Your task to perform on an android device: Clear the shopping cart on ebay.com. Search for razer huntsman on ebay.com, select the first entry, and add it to the cart. Image 0: 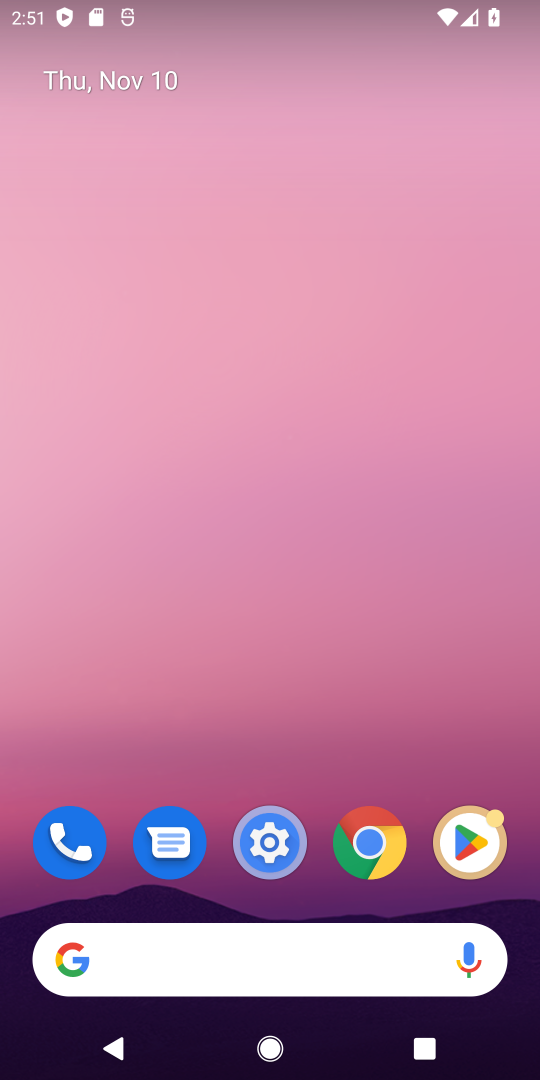
Step 0: press home button
Your task to perform on an android device: Clear the shopping cart on ebay.com. Search for razer huntsman on ebay.com, select the first entry, and add it to the cart. Image 1: 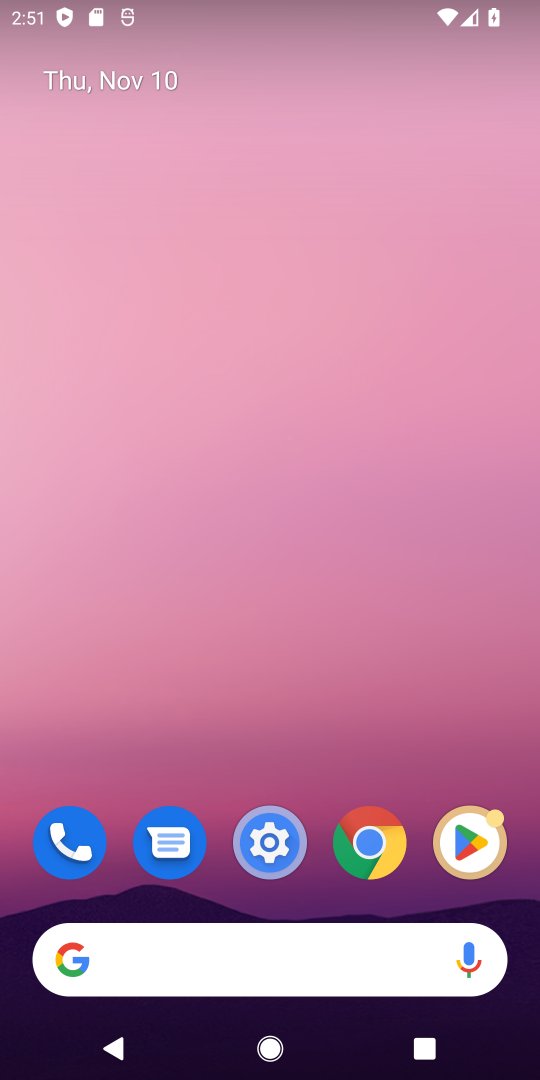
Step 1: click (105, 954)
Your task to perform on an android device: Clear the shopping cart on ebay.com. Search for razer huntsman on ebay.com, select the first entry, and add it to the cart. Image 2: 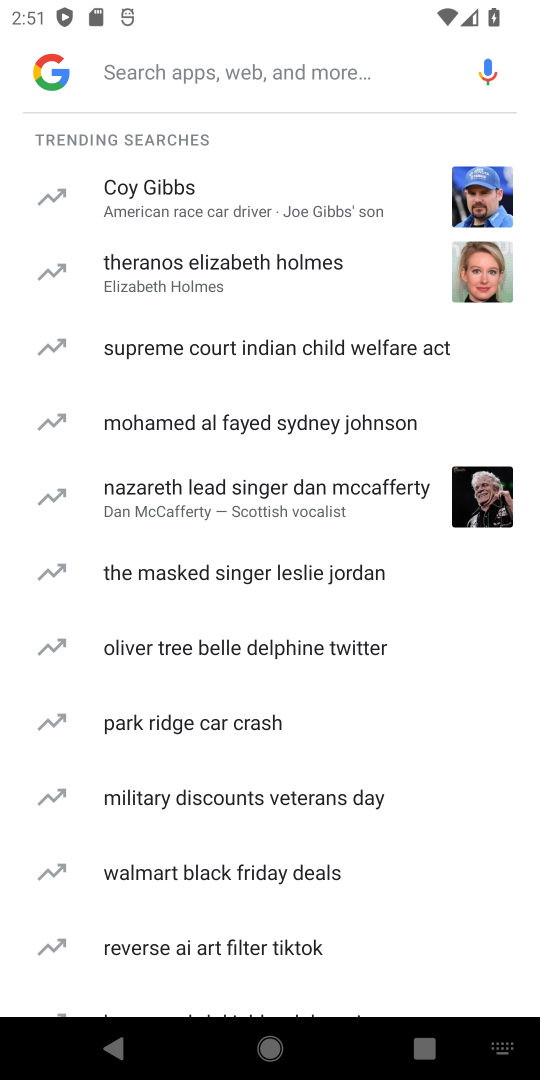
Step 2: type "ebay.com"
Your task to perform on an android device: Clear the shopping cart on ebay.com. Search for razer huntsman on ebay.com, select the first entry, and add it to the cart. Image 3: 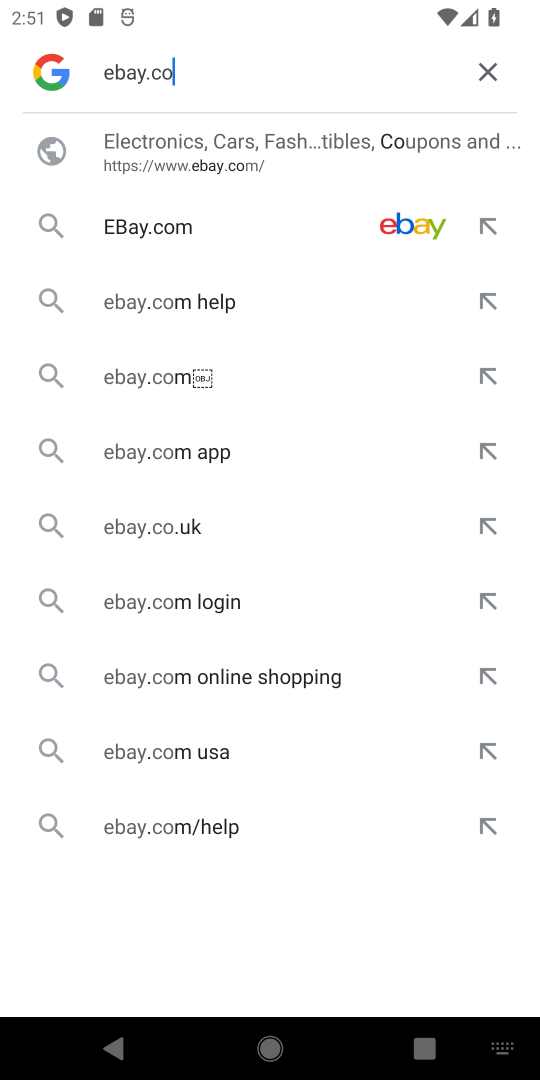
Step 3: press enter
Your task to perform on an android device: Clear the shopping cart on ebay.com. Search for razer huntsman on ebay.com, select the first entry, and add it to the cart. Image 4: 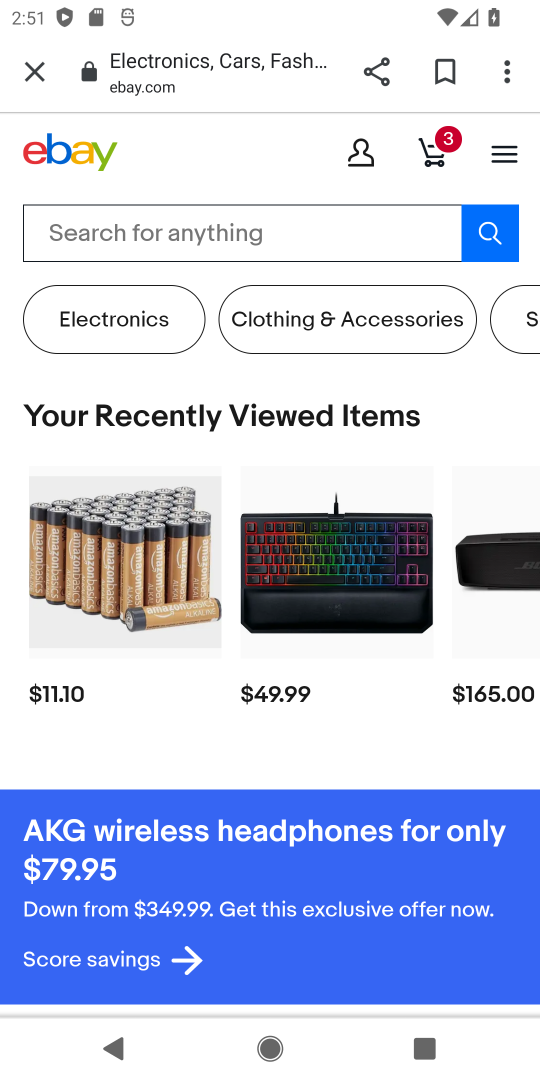
Step 4: click (440, 145)
Your task to perform on an android device: Clear the shopping cart on ebay.com. Search for razer huntsman on ebay.com, select the first entry, and add it to the cart. Image 5: 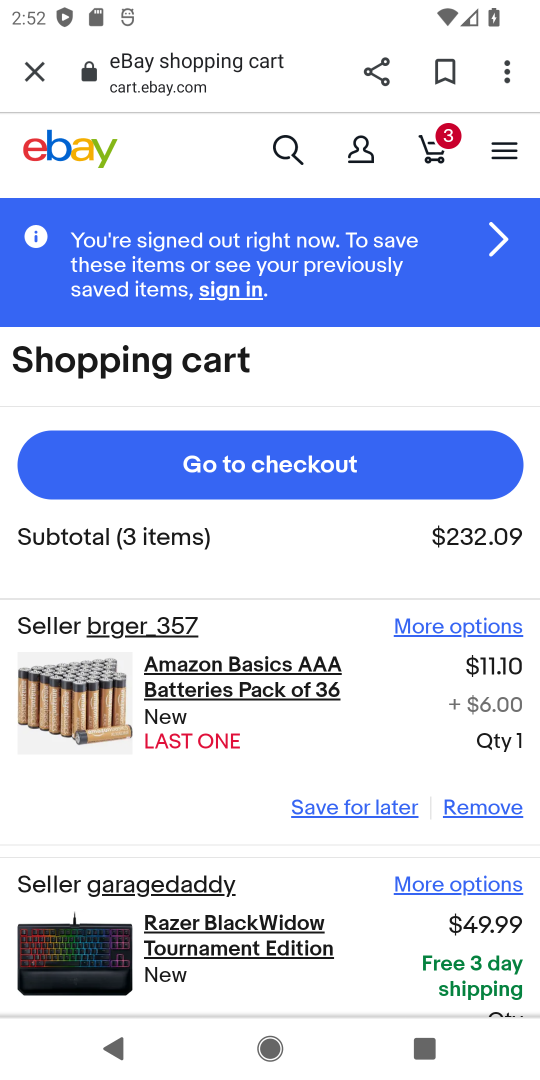
Step 5: click (460, 812)
Your task to perform on an android device: Clear the shopping cart on ebay.com. Search for razer huntsman on ebay.com, select the first entry, and add it to the cart. Image 6: 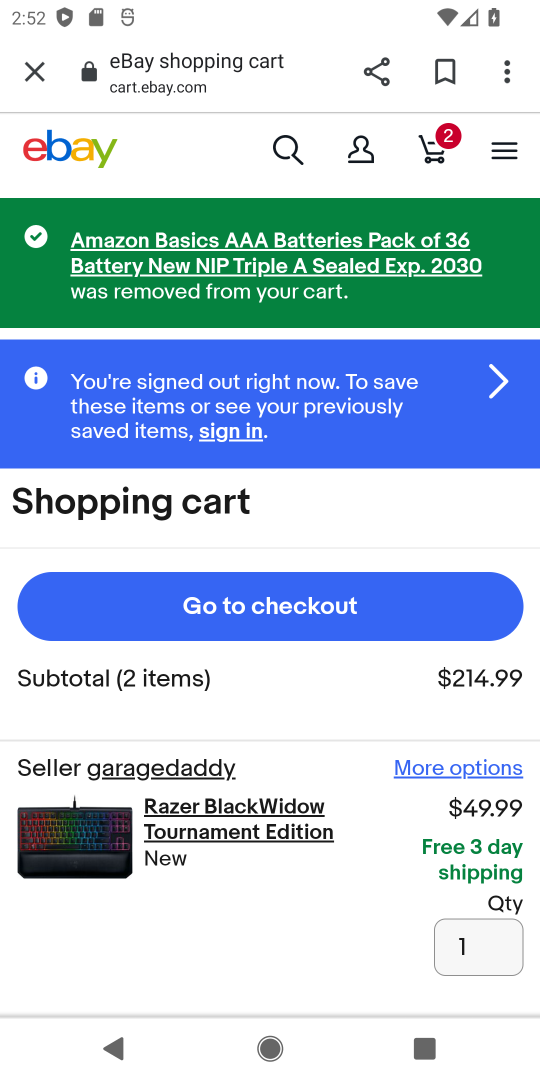
Step 6: drag from (274, 880) to (325, 463)
Your task to perform on an android device: Clear the shopping cart on ebay.com. Search for razer huntsman on ebay.com, select the first entry, and add it to the cart. Image 7: 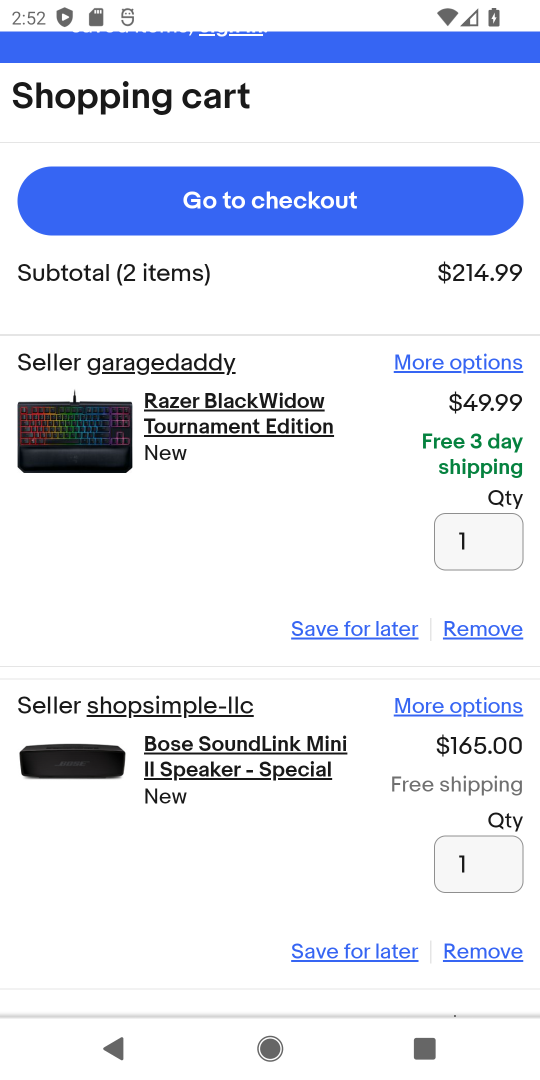
Step 7: click (493, 629)
Your task to perform on an android device: Clear the shopping cart on ebay.com. Search for razer huntsman on ebay.com, select the first entry, and add it to the cart. Image 8: 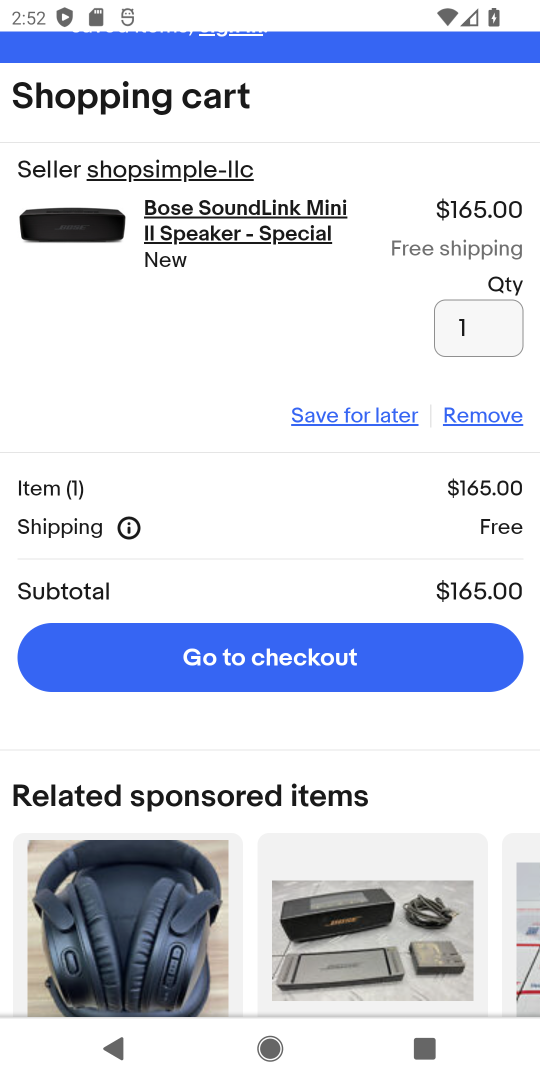
Step 8: click (483, 416)
Your task to perform on an android device: Clear the shopping cart on ebay.com. Search for razer huntsman on ebay.com, select the first entry, and add it to the cart. Image 9: 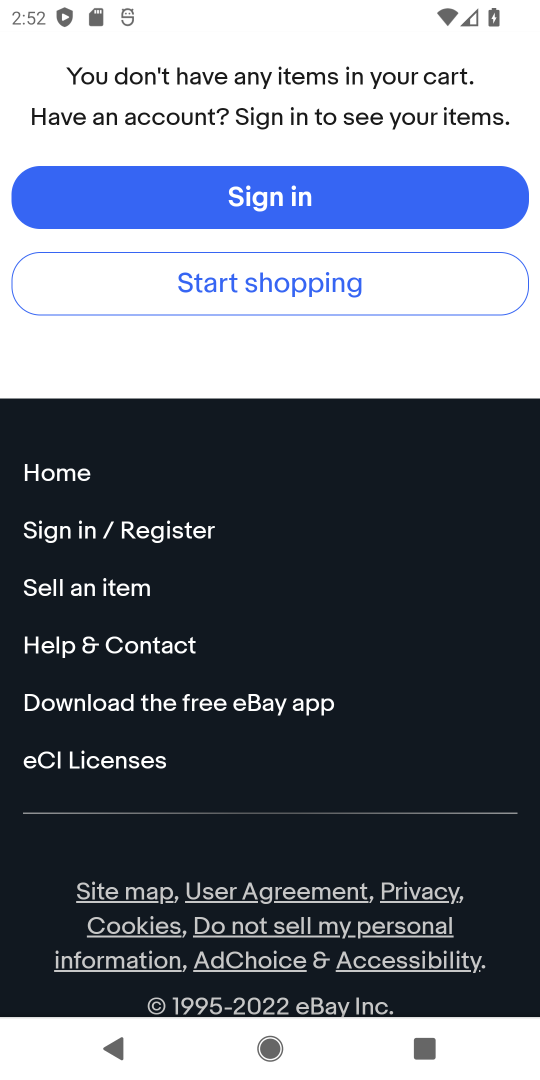
Step 9: drag from (506, 324) to (454, 746)
Your task to perform on an android device: Clear the shopping cart on ebay.com. Search for razer huntsman on ebay.com, select the first entry, and add it to the cart. Image 10: 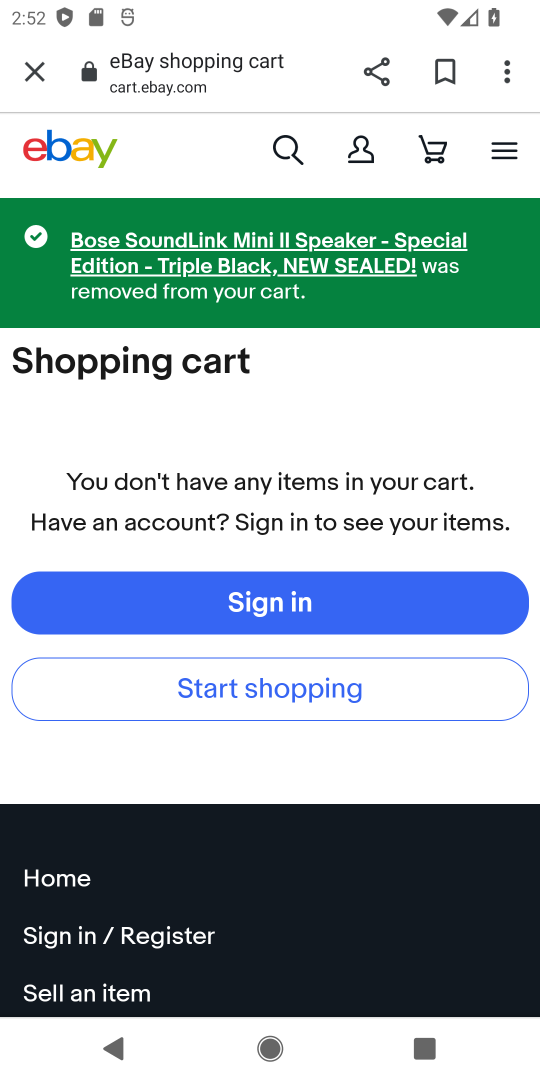
Step 10: click (292, 141)
Your task to perform on an android device: Clear the shopping cart on ebay.com. Search for razer huntsman on ebay.com, select the first entry, and add it to the cart. Image 11: 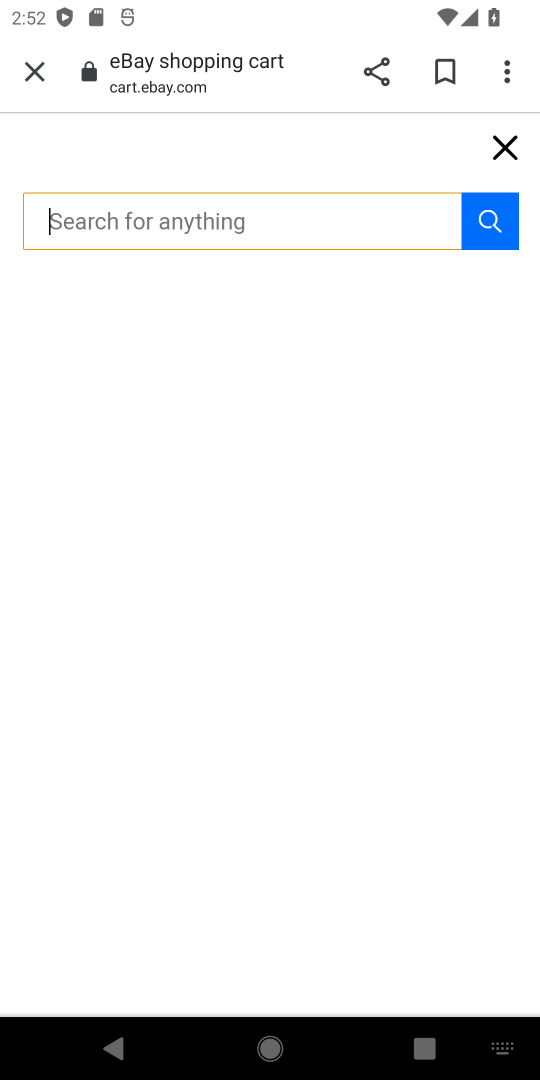
Step 11: type "razer huntsman"
Your task to perform on an android device: Clear the shopping cart on ebay.com. Search for razer huntsman on ebay.com, select the first entry, and add it to the cart. Image 12: 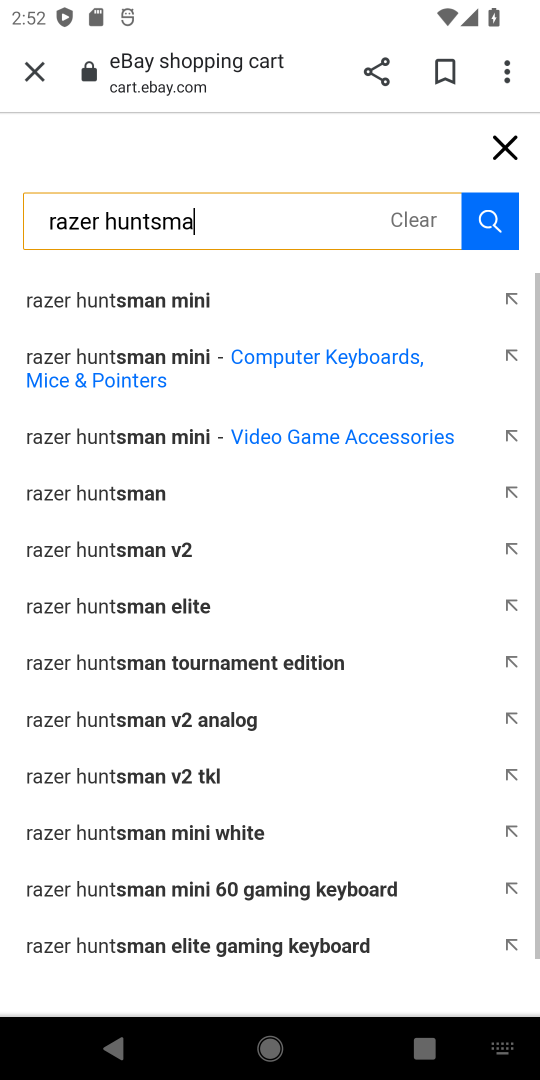
Step 12: press enter
Your task to perform on an android device: Clear the shopping cart on ebay.com. Search for razer huntsman on ebay.com, select the first entry, and add it to the cart. Image 13: 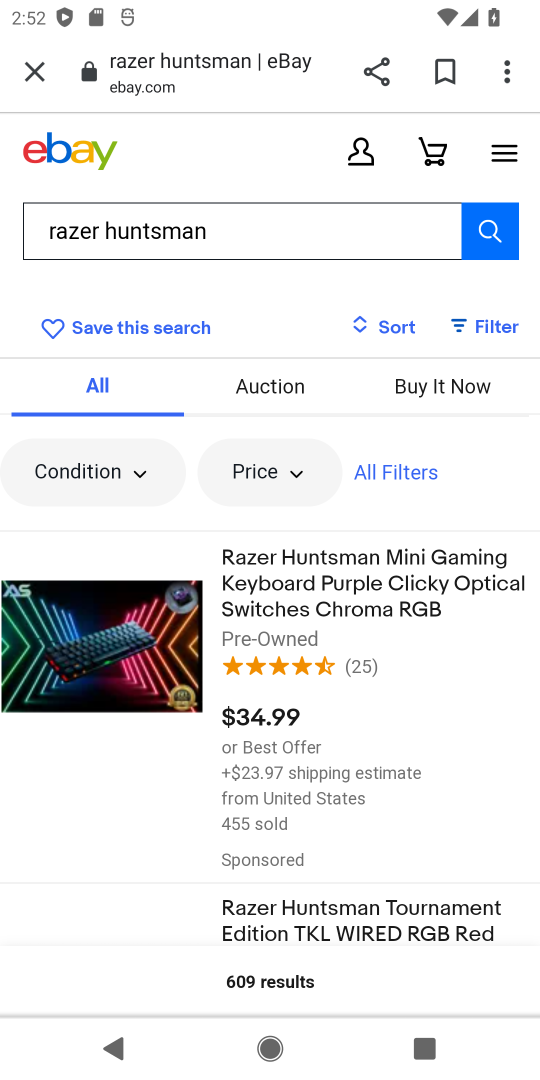
Step 13: click (306, 599)
Your task to perform on an android device: Clear the shopping cart on ebay.com. Search for razer huntsman on ebay.com, select the first entry, and add it to the cart. Image 14: 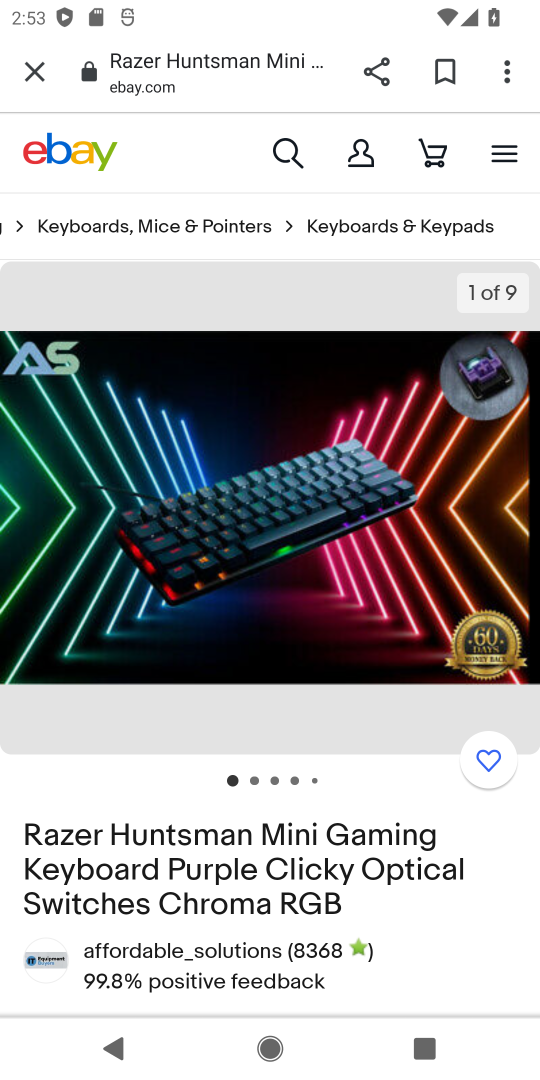
Step 14: drag from (288, 906) to (322, 628)
Your task to perform on an android device: Clear the shopping cart on ebay.com. Search for razer huntsman on ebay.com, select the first entry, and add it to the cart. Image 15: 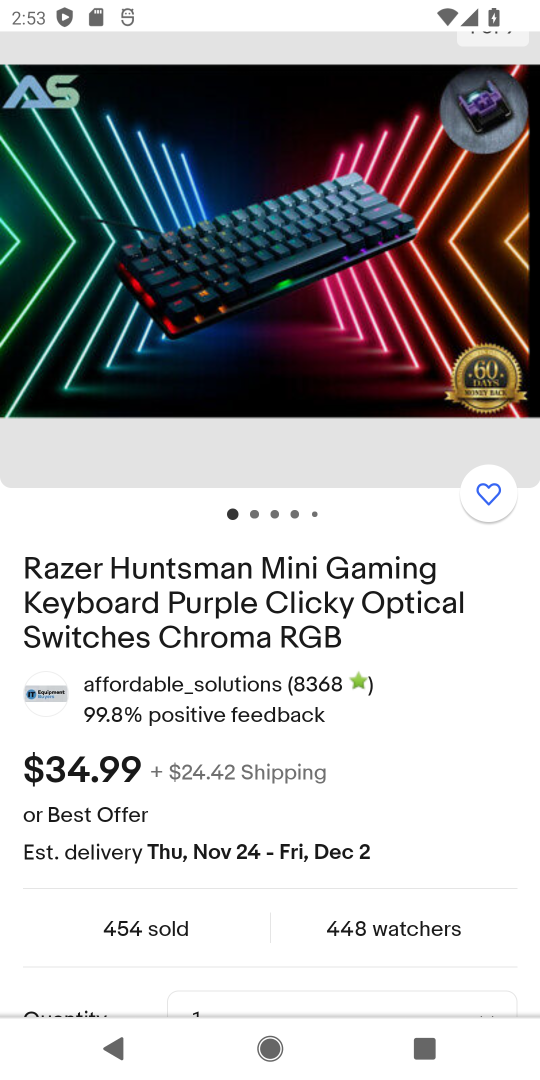
Step 15: drag from (229, 835) to (283, 543)
Your task to perform on an android device: Clear the shopping cart on ebay.com. Search for razer huntsman on ebay.com, select the first entry, and add it to the cart. Image 16: 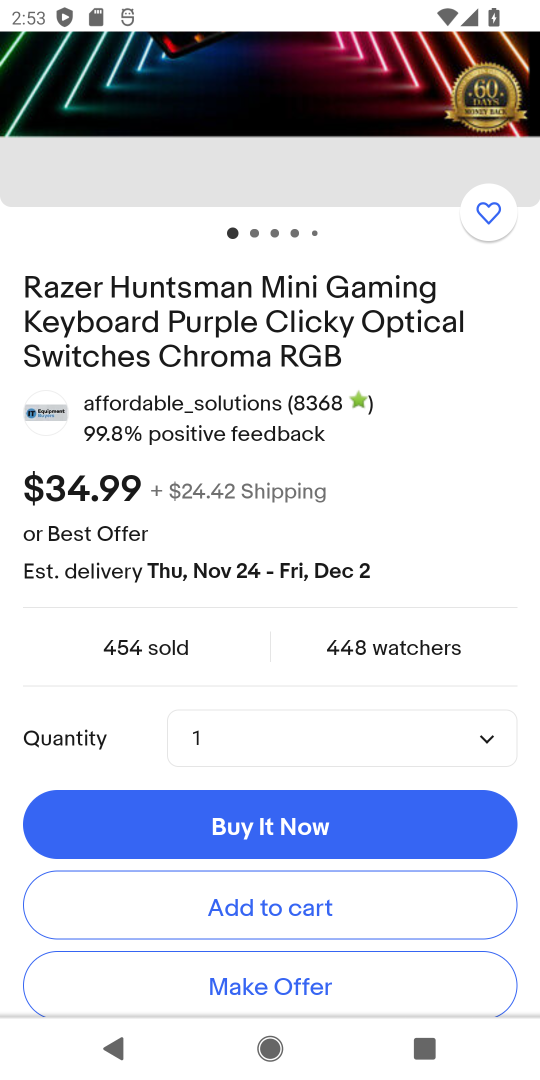
Step 16: drag from (283, 719) to (320, 427)
Your task to perform on an android device: Clear the shopping cart on ebay.com. Search for razer huntsman on ebay.com, select the first entry, and add it to the cart. Image 17: 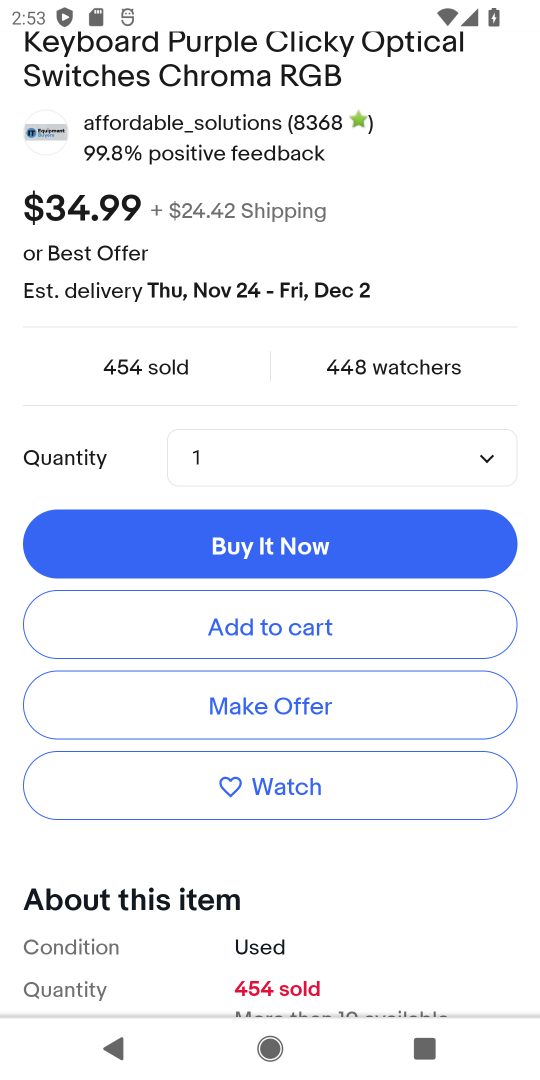
Step 17: click (247, 628)
Your task to perform on an android device: Clear the shopping cart on ebay.com. Search for razer huntsman on ebay.com, select the first entry, and add it to the cart. Image 18: 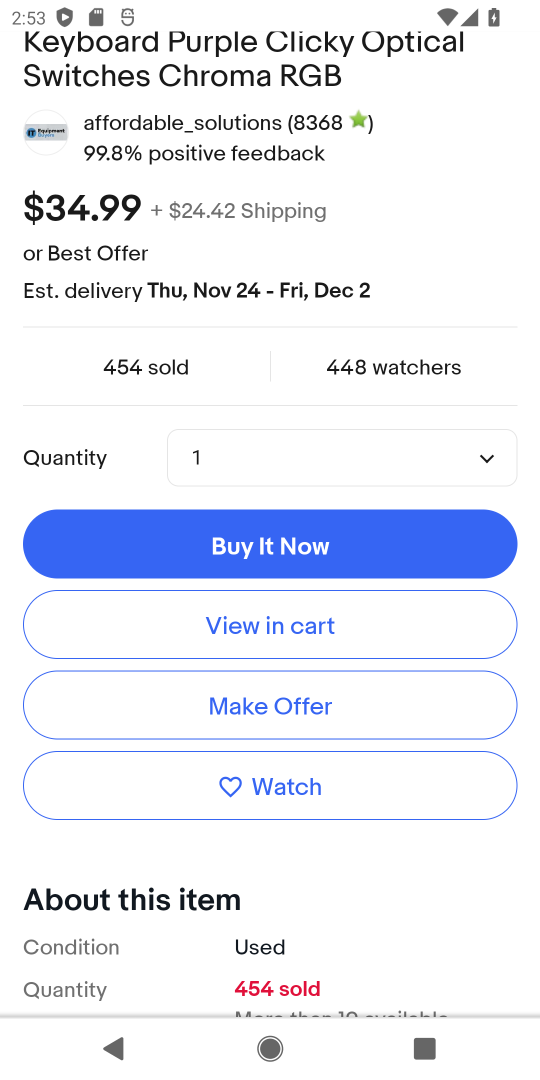
Step 18: task complete